Your task to perform on an android device: turn on translation in the chrome app Image 0: 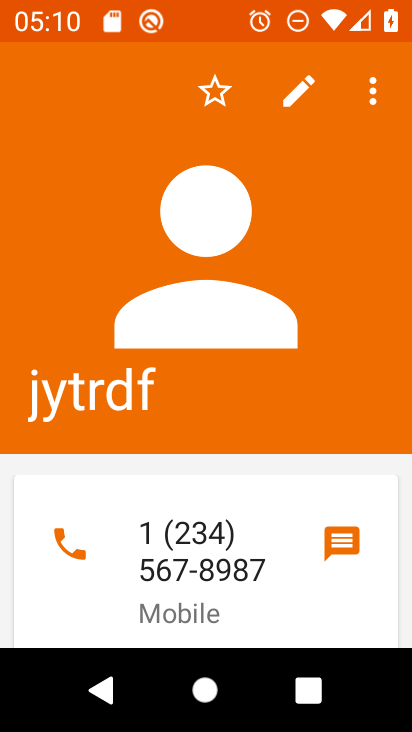
Step 0: press home button
Your task to perform on an android device: turn on translation in the chrome app Image 1: 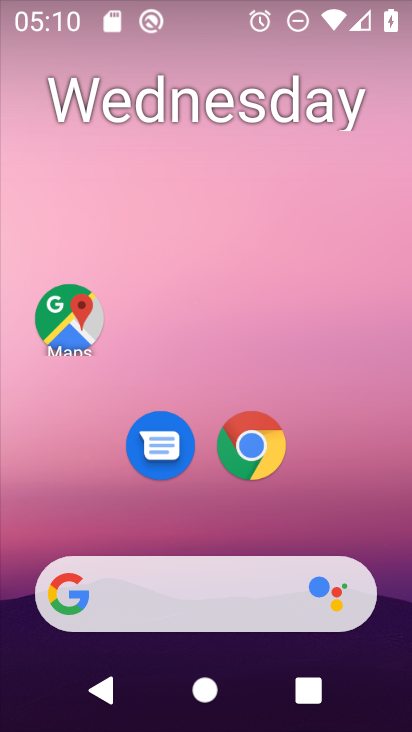
Step 1: click (253, 447)
Your task to perform on an android device: turn on translation in the chrome app Image 2: 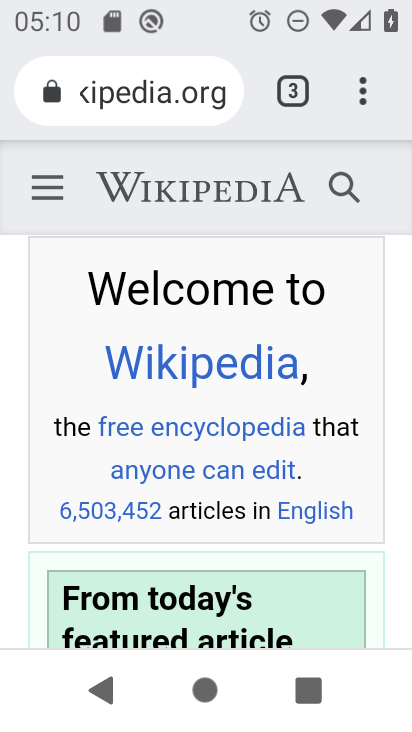
Step 2: click (375, 82)
Your task to perform on an android device: turn on translation in the chrome app Image 3: 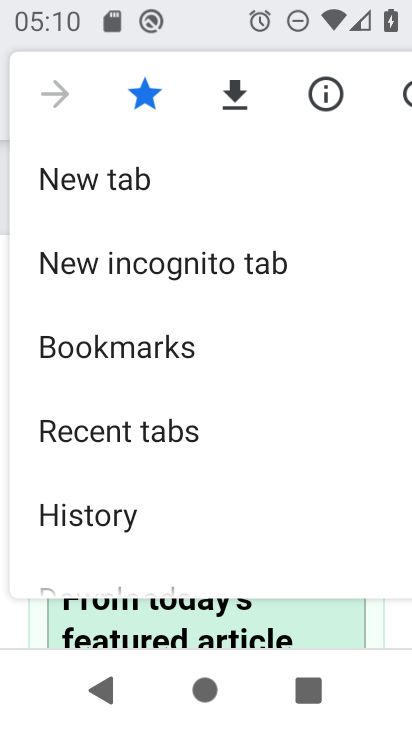
Step 3: drag from (128, 507) to (146, 175)
Your task to perform on an android device: turn on translation in the chrome app Image 4: 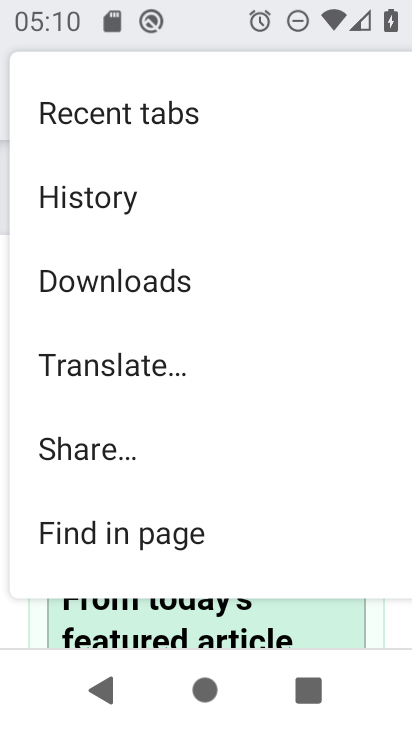
Step 4: drag from (96, 489) to (121, 152)
Your task to perform on an android device: turn on translation in the chrome app Image 5: 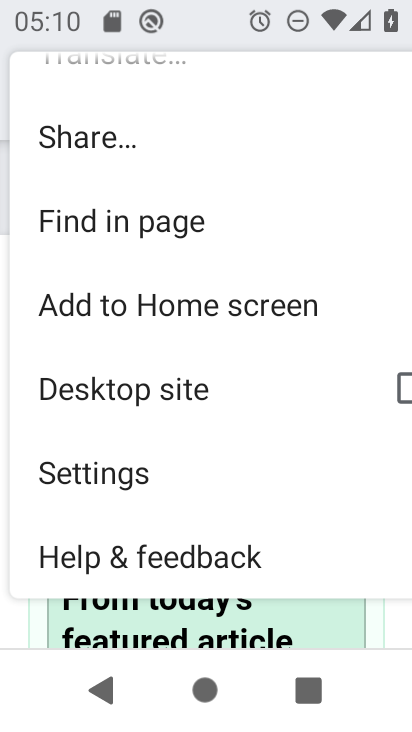
Step 5: click (127, 463)
Your task to perform on an android device: turn on translation in the chrome app Image 6: 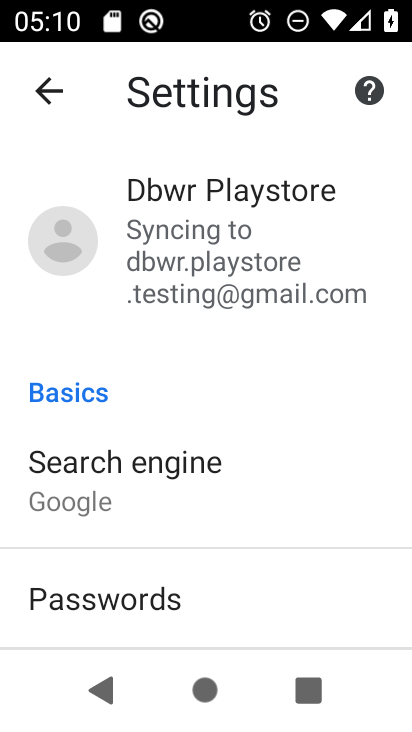
Step 6: drag from (208, 635) to (243, 297)
Your task to perform on an android device: turn on translation in the chrome app Image 7: 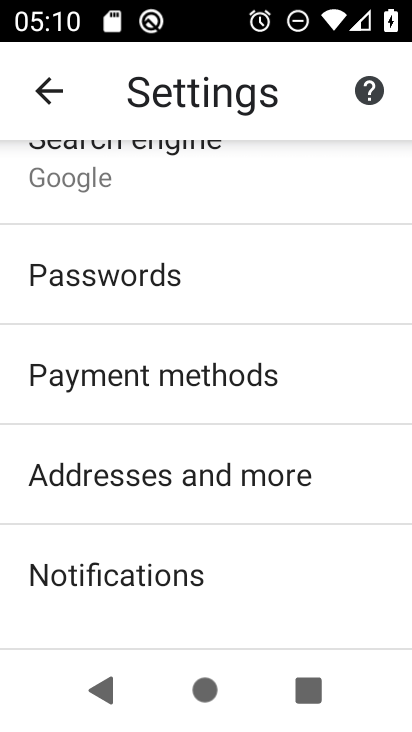
Step 7: drag from (151, 633) to (200, 201)
Your task to perform on an android device: turn on translation in the chrome app Image 8: 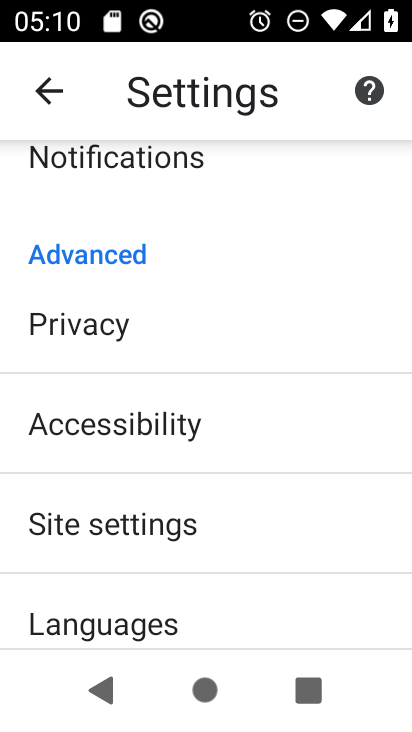
Step 8: click (146, 606)
Your task to perform on an android device: turn on translation in the chrome app Image 9: 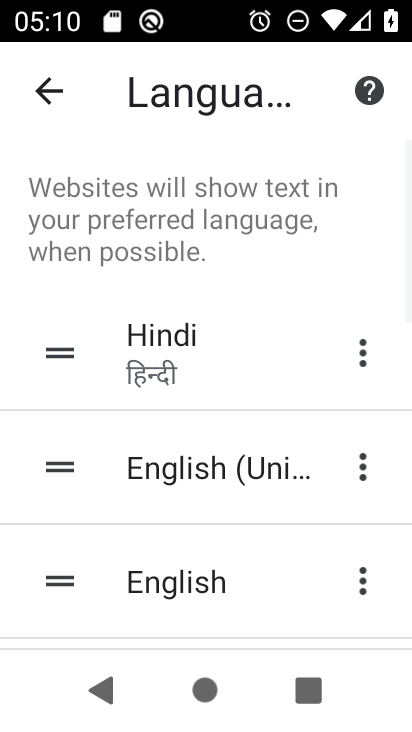
Step 9: drag from (146, 606) to (204, 223)
Your task to perform on an android device: turn on translation in the chrome app Image 10: 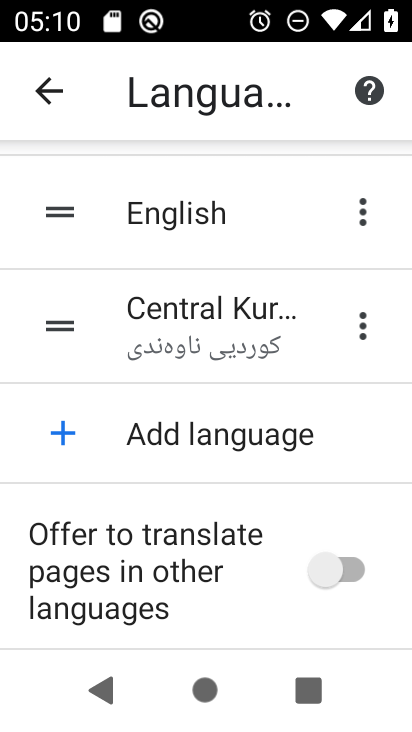
Step 10: click (360, 562)
Your task to perform on an android device: turn on translation in the chrome app Image 11: 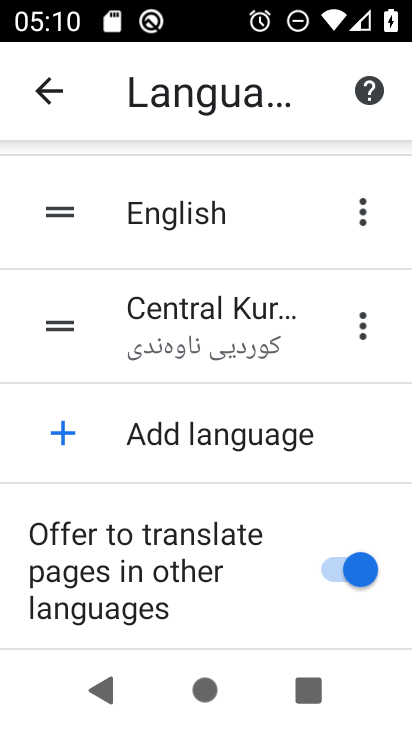
Step 11: task complete